Your task to perform on an android device: turn on priority inbox in the gmail app Image 0: 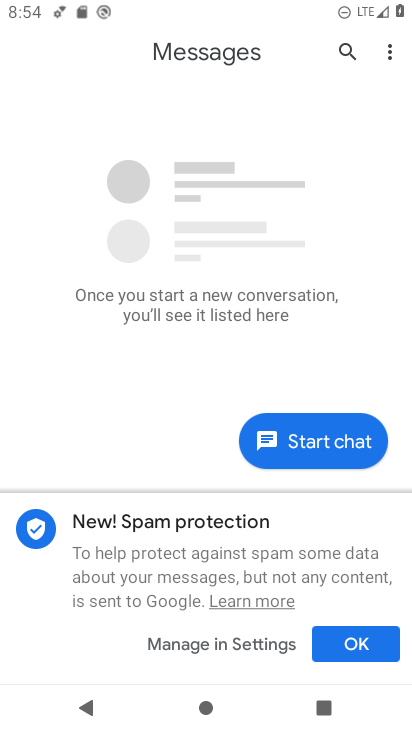
Step 0: press home button
Your task to perform on an android device: turn on priority inbox in the gmail app Image 1: 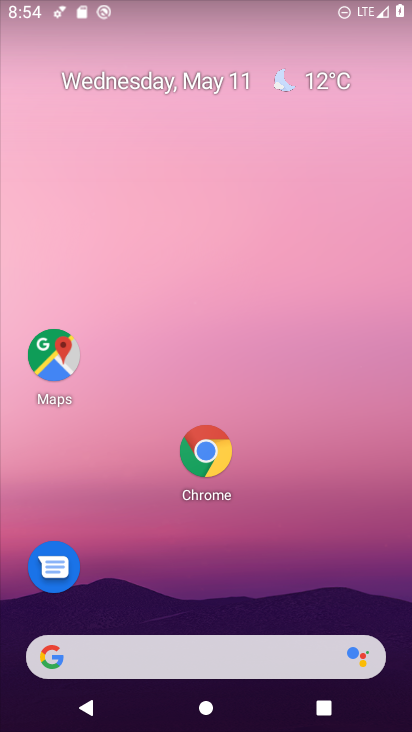
Step 1: drag from (124, 663) to (296, 165)
Your task to perform on an android device: turn on priority inbox in the gmail app Image 2: 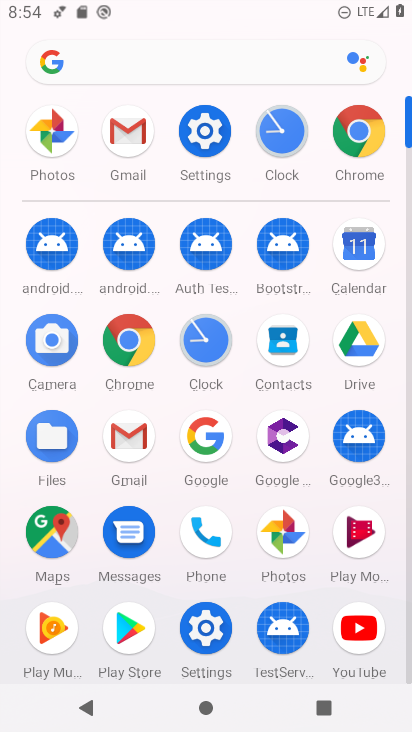
Step 2: click (125, 131)
Your task to perform on an android device: turn on priority inbox in the gmail app Image 3: 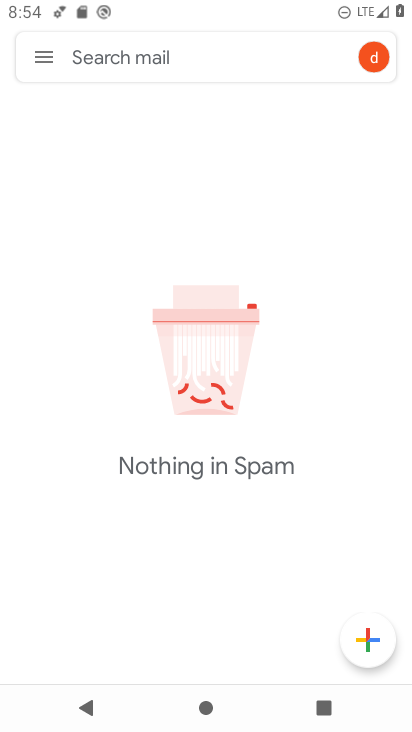
Step 3: click (48, 54)
Your task to perform on an android device: turn on priority inbox in the gmail app Image 4: 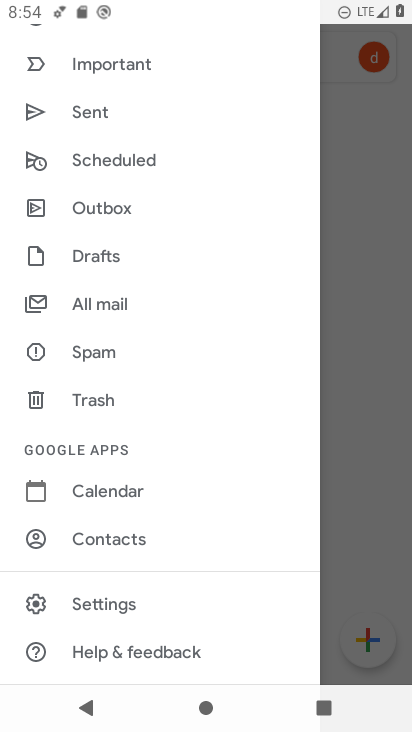
Step 4: click (110, 605)
Your task to perform on an android device: turn on priority inbox in the gmail app Image 5: 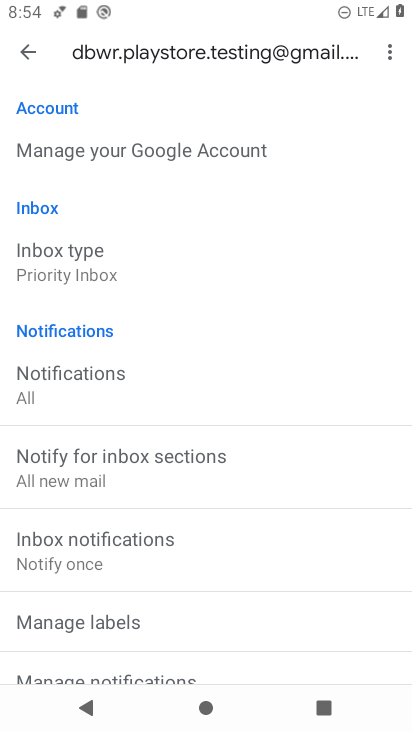
Step 5: click (89, 278)
Your task to perform on an android device: turn on priority inbox in the gmail app Image 6: 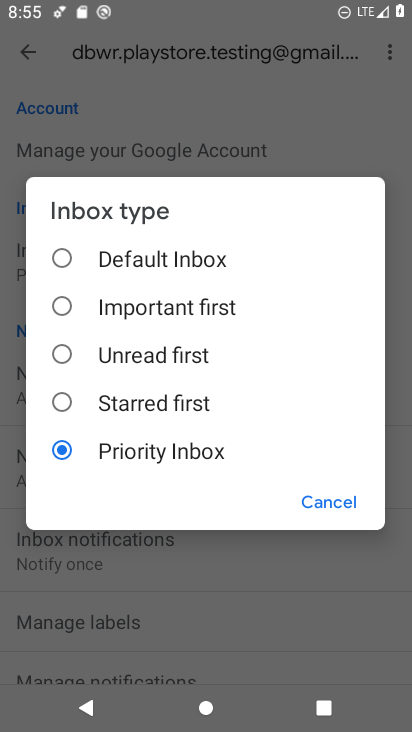
Step 6: task complete